Your task to perform on an android device: turn on sleep mode Image 0: 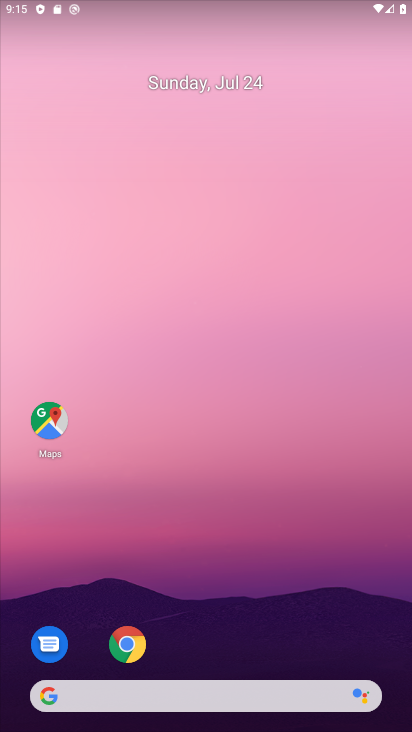
Step 0: drag from (317, 236) to (310, 188)
Your task to perform on an android device: turn on sleep mode Image 1: 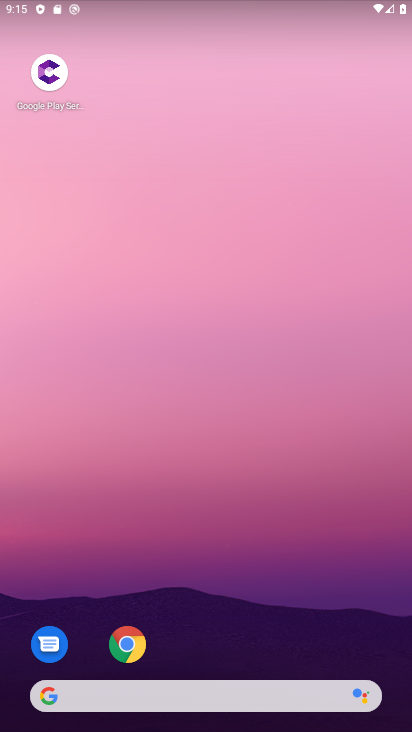
Step 1: drag from (382, 644) to (352, 172)
Your task to perform on an android device: turn on sleep mode Image 2: 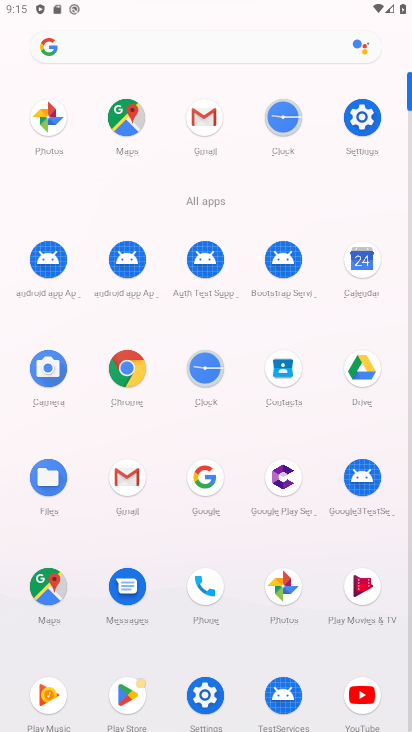
Step 2: click (204, 694)
Your task to perform on an android device: turn on sleep mode Image 3: 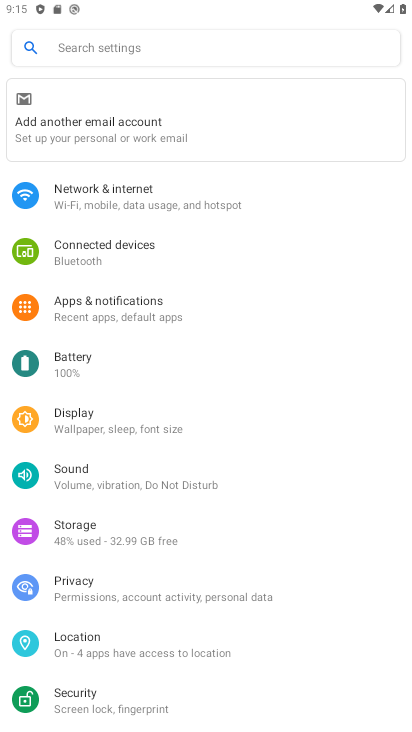
Step 3: click (74, 408)
Your task to perform on an android device: turn on sleep mode Image 4: 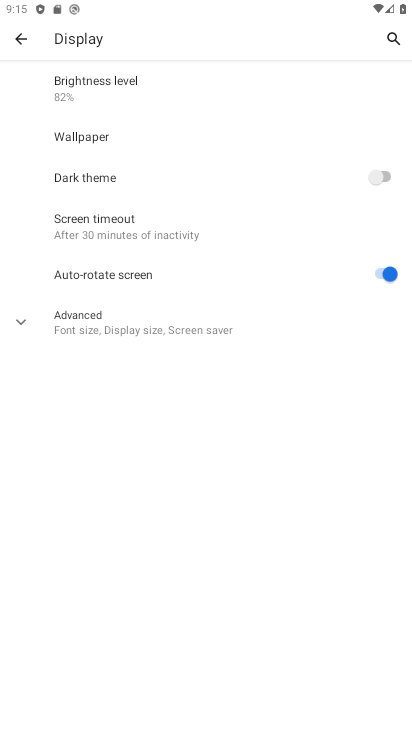
Step 4: click (21, 317)
Your task to perform on an android device: turn on sleep mode Image 5: 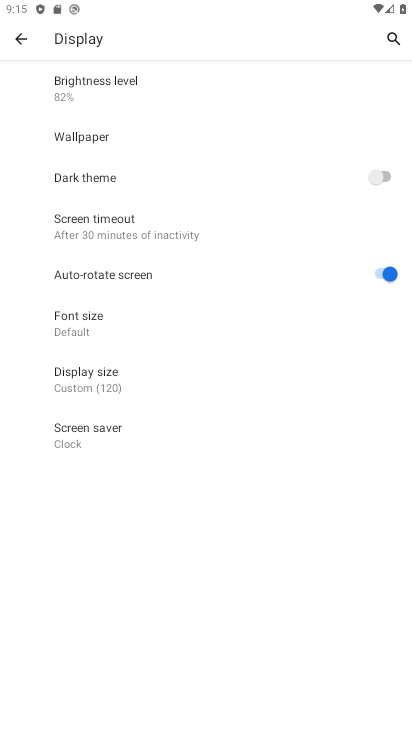
Step 5: task complete